Your task to perform on an android device: Go to Amazon Image 0: 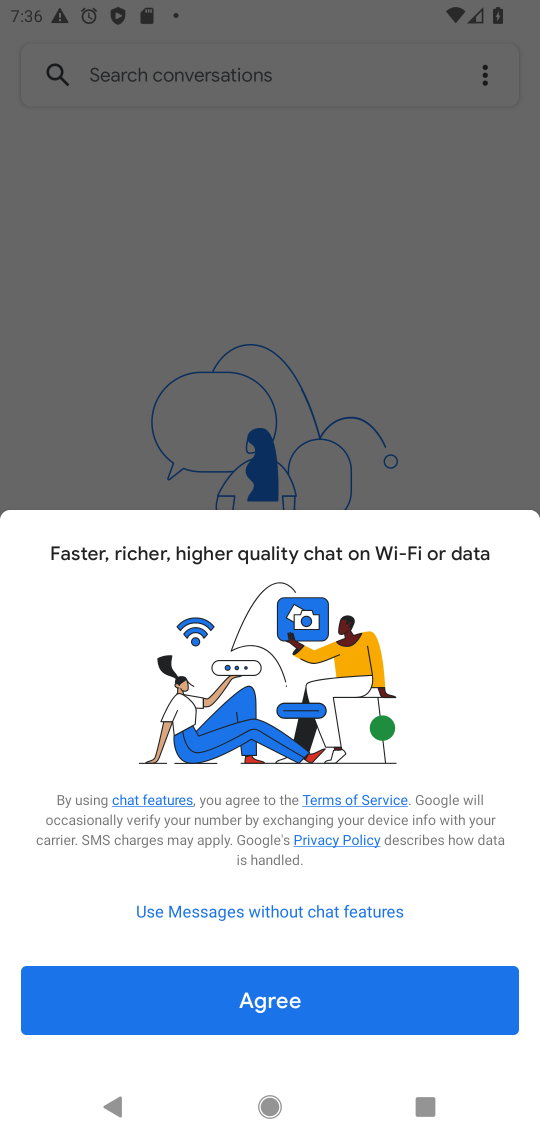
Step 0: press home button
Your task to perform on an android device: Go to Amazon Image 1: 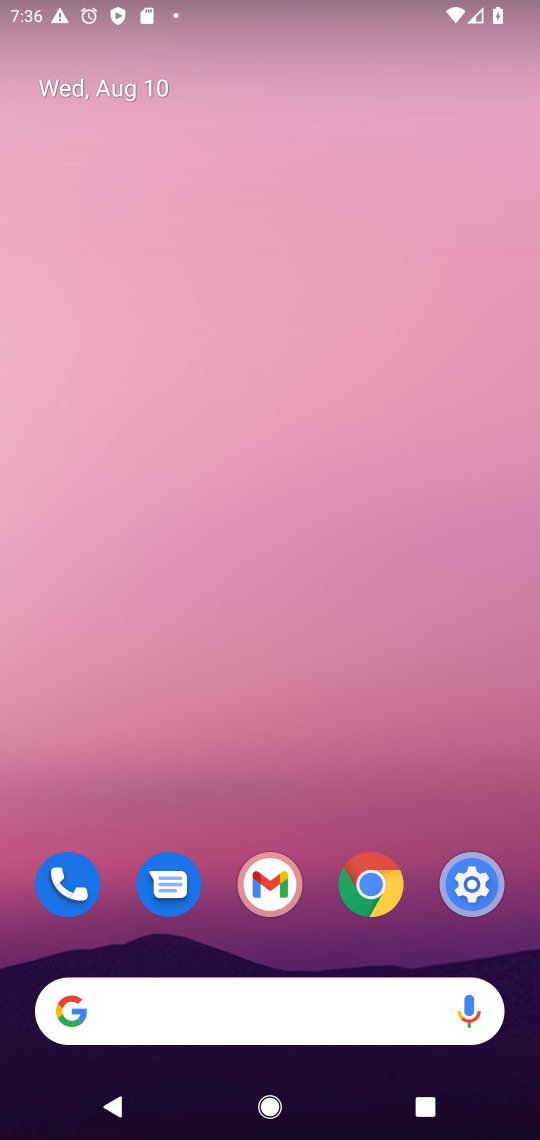
Step 1: click (161, 1021)
Your task to perform on an android device: Go to Amazon Image 2: 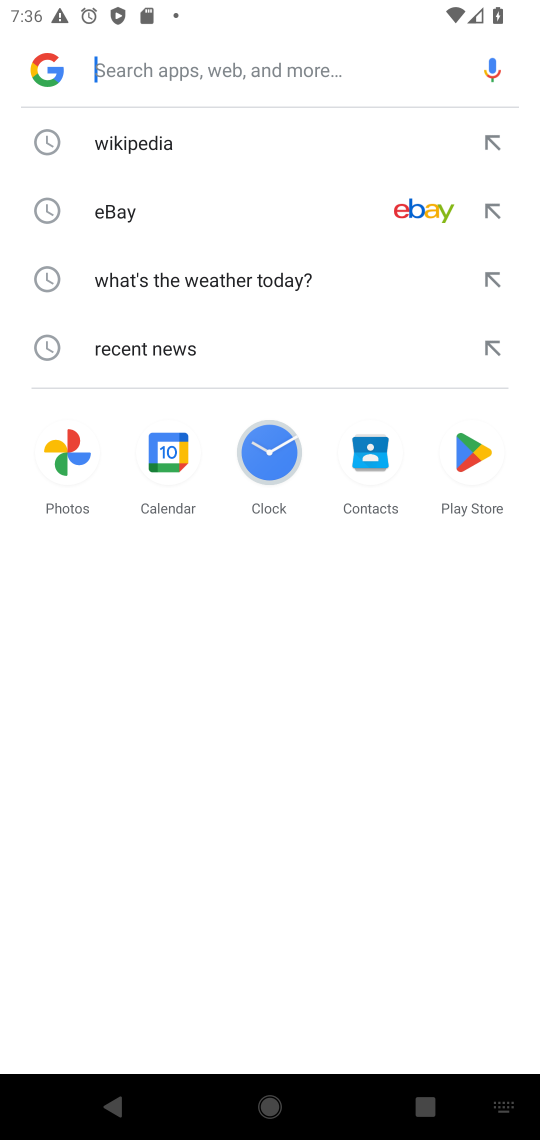
Step 2: type "Amazon"
Your task to perform on an android device: Go to Amazon Image 3: 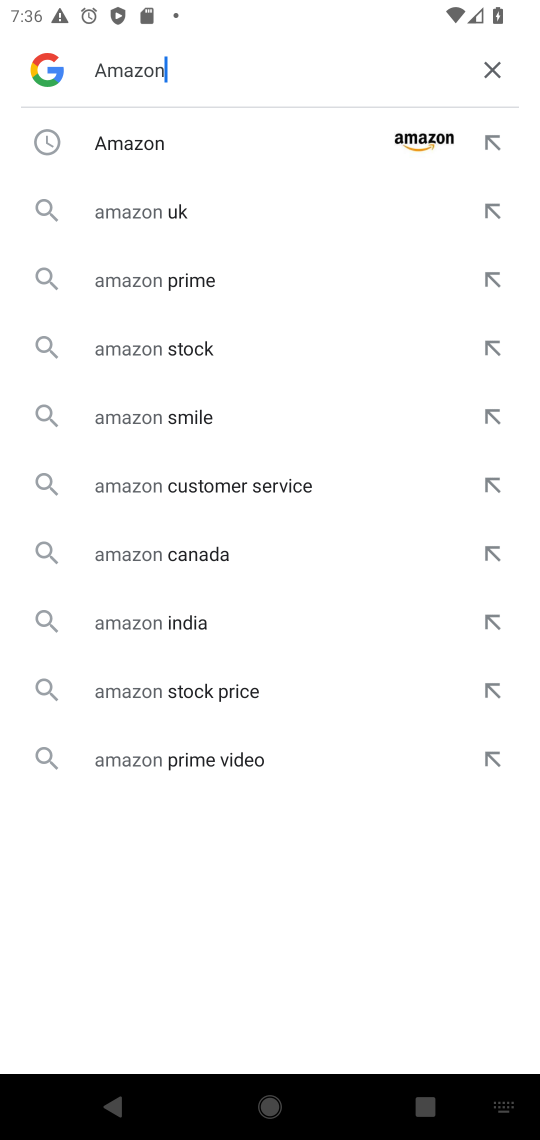
Step 3: click (201, 126)
Your task to perform on an android device: Go to Amazon Image 4: 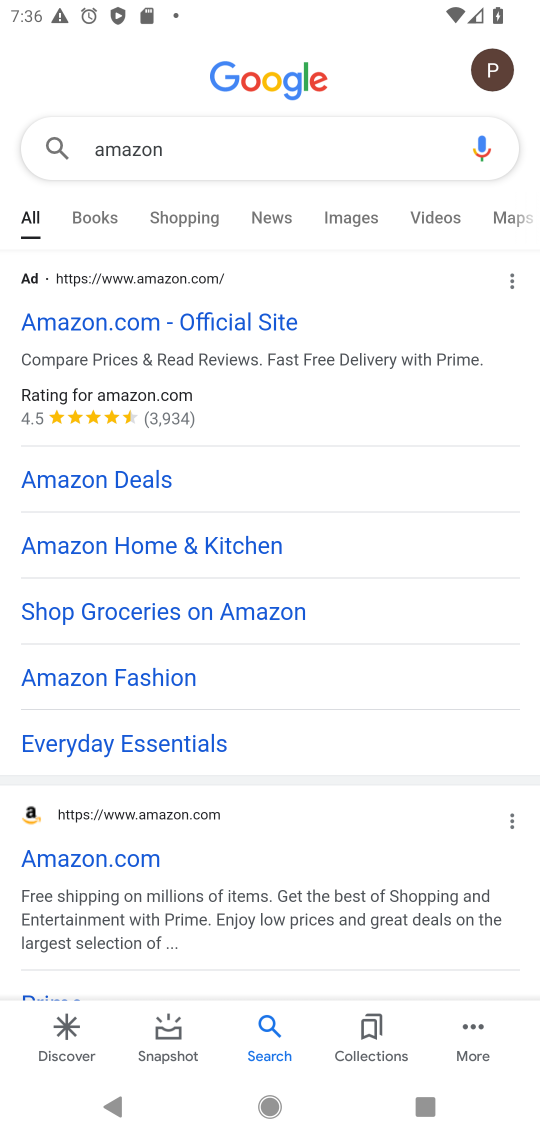
Step 4: task complete